Your task to perform on an android device: Open Android settings Image 0: 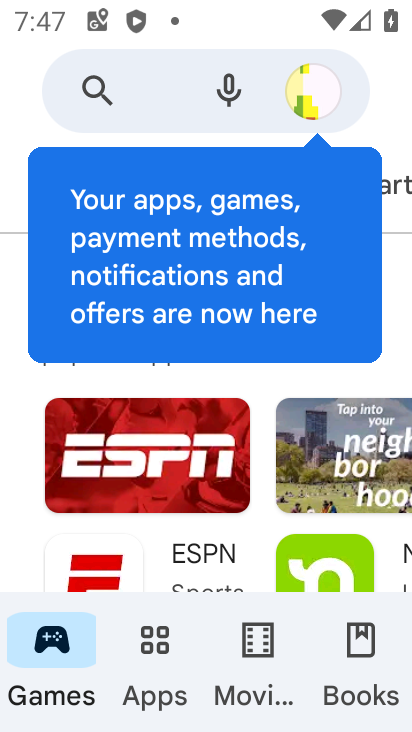
Step 0: press home button
Your task to perform on an android device: Open Android settings Image 1: 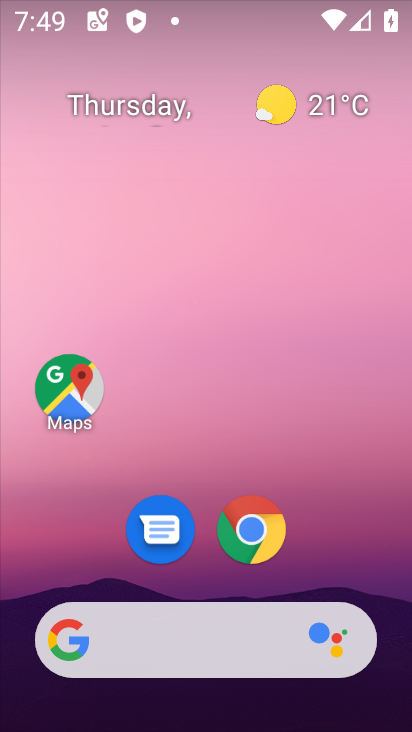
Step 1: drag from (377, 727) to (220, 237)
Your task to perform on an android device: Open Android settings Image 2: 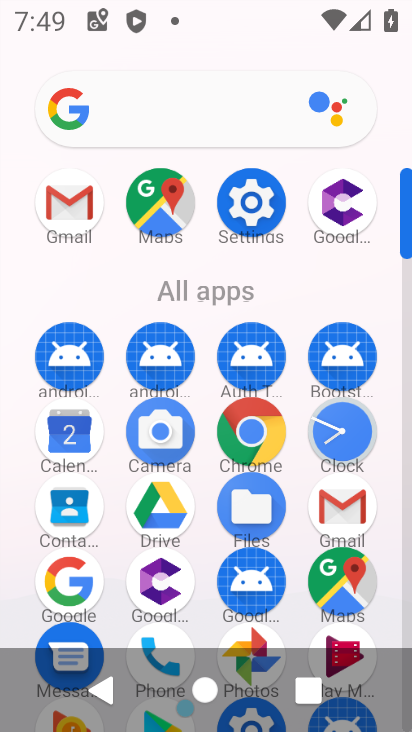
Step 2: click (239, 201)
Your task to perform on an android device: Open Android settings Image 3: 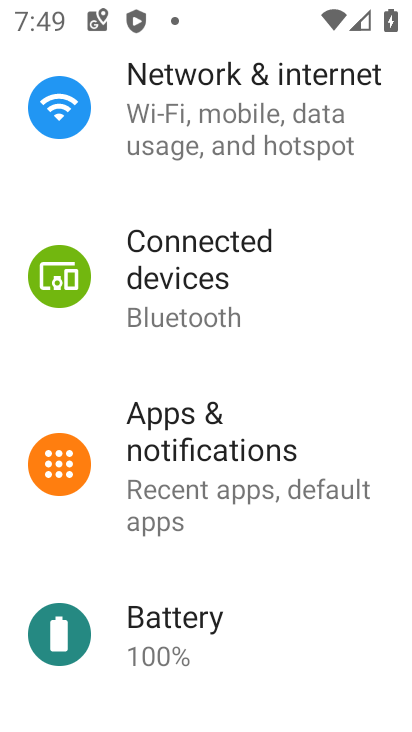
Step 3: drag from (312, 495) to (292, 270)
Your task to perform on an android device: Open Android settings Image 4: 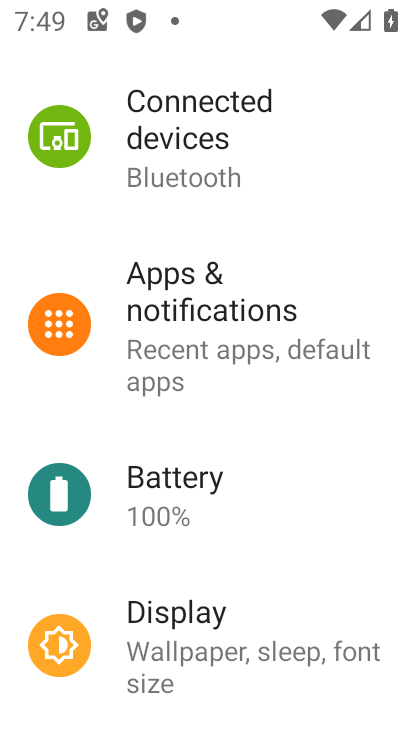
Step 4: drag from (256, 674) to (242, 113)
Your task to perform on an android device: Open Android settings Image 5: 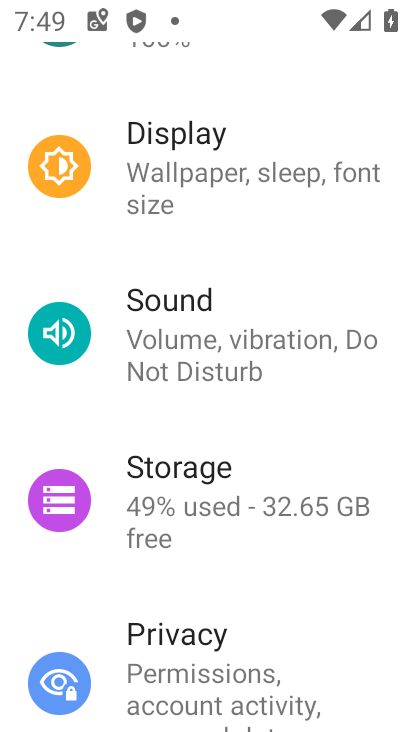
Step 5: drag from (345, 672) to (304, 94)
Your task to perform on an android device: Open Android settings Image 6: 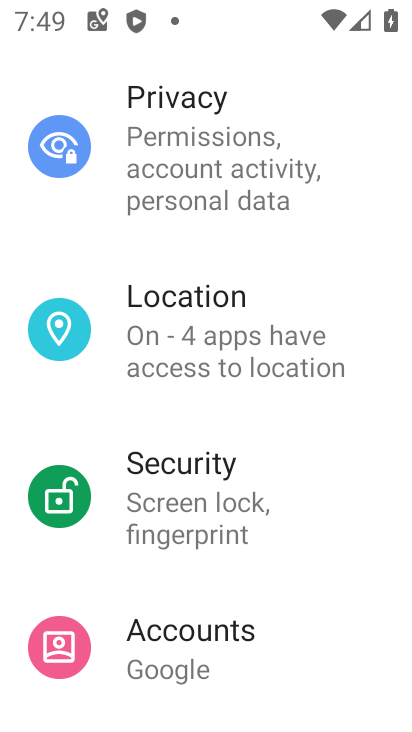
Step 6: drag from (334, 639) to (269, 80)
Your task to perform on an android device: Open Android settings Image 7: 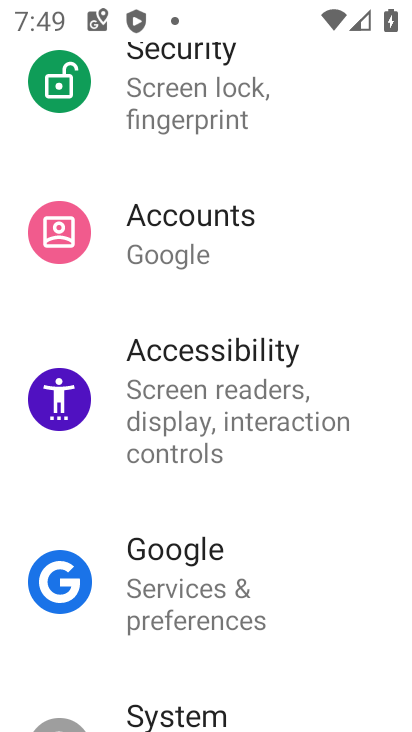
Step 7: drag from (313, 567) to (295, 136)
Your task to perform on an android device: Open Android settings Image 8: 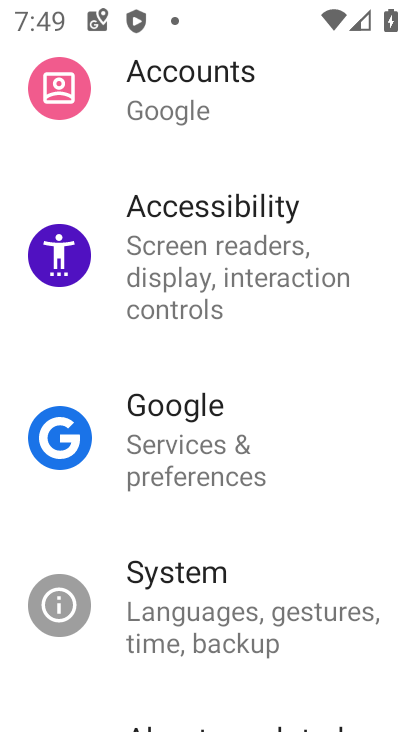
Step 8: drag from (297, 637) to (288, 284)
Your task to perform on an android device: Open Android settings Image 9: 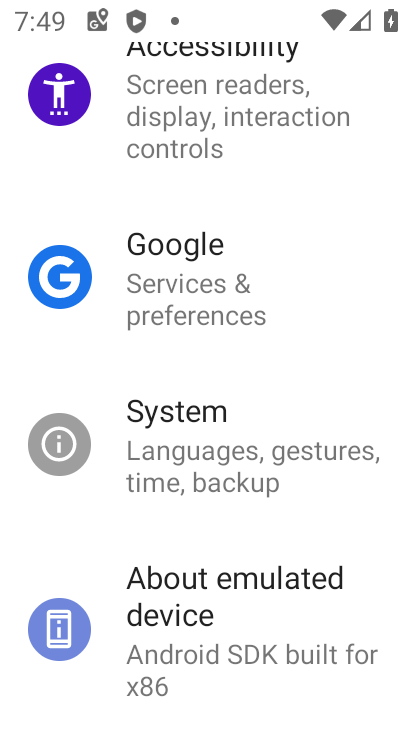
Step 9: click (269, 663)
Your task to perform on an android device: Open Android settings Image 10: 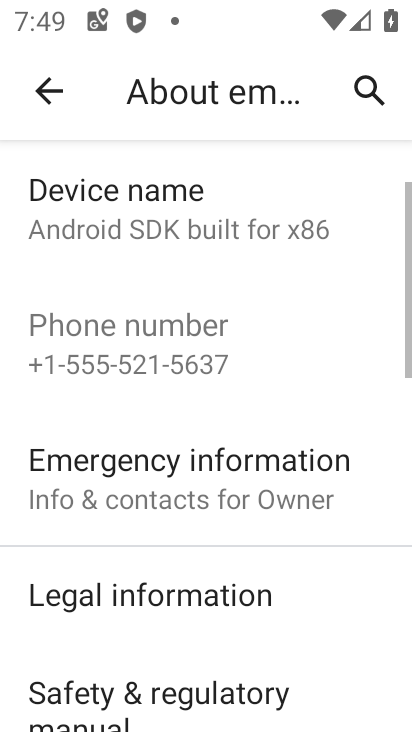
Step 10: task complete